Your task to perform on an android device: find which apps use the phone's location Image 0: 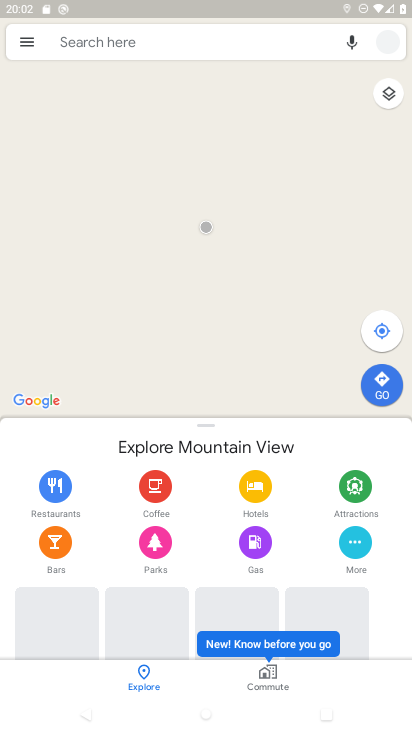
Step 0: press home button
Your task to perform on an android device: find which apps use the phone's location Image 1: 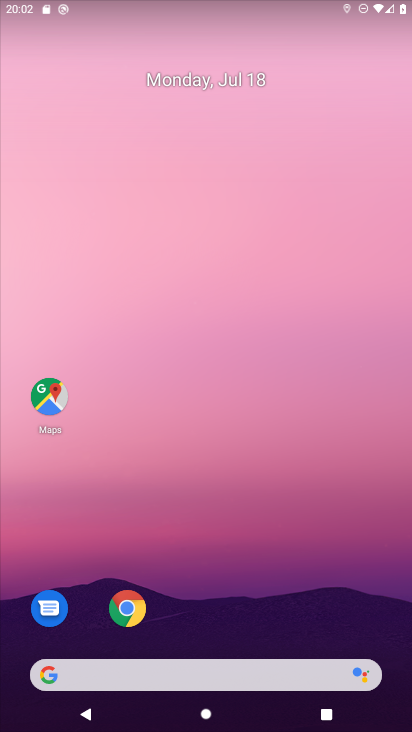
Step 1: drag from (237, 612) to (243, 131)
Your task to perform on an android device: find which apps use the phone's location Image 2: 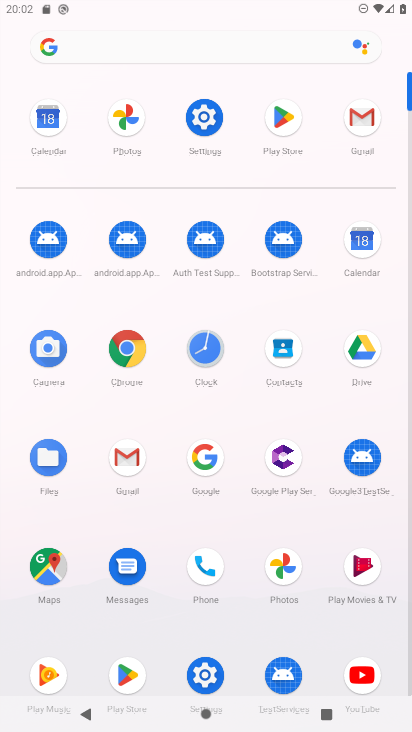
Step 2: click (206, 114)
Your task to perform on an android device: find which apps use the phone's location Image 3: 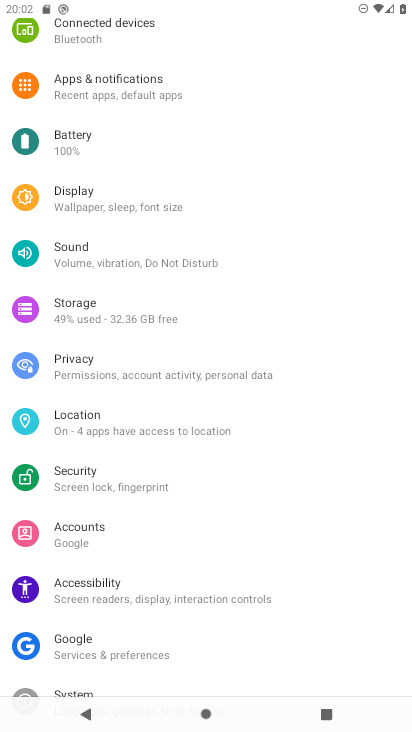
Step 3: click (106, 409)
Your task to perform on an android device: find which apps use the phone's location Image 4: 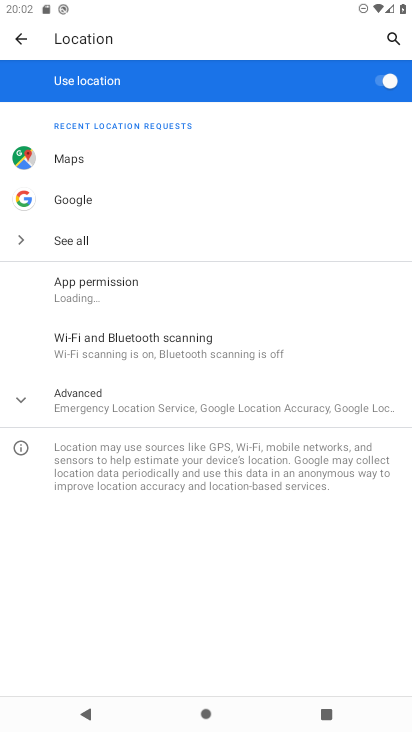
Step 4: click (111, 285)
Your task to perform on an android device: find which apps use the phone's location Image 5: 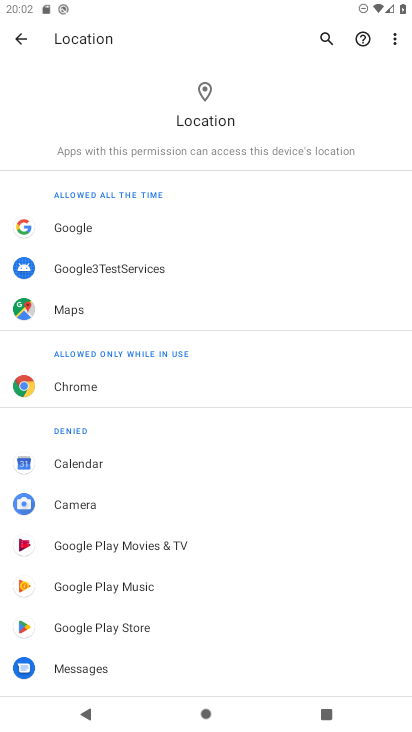
Step 5: task complete